Your task to perform on an android device: open chrome and create a bookmark for the current page Image 0: 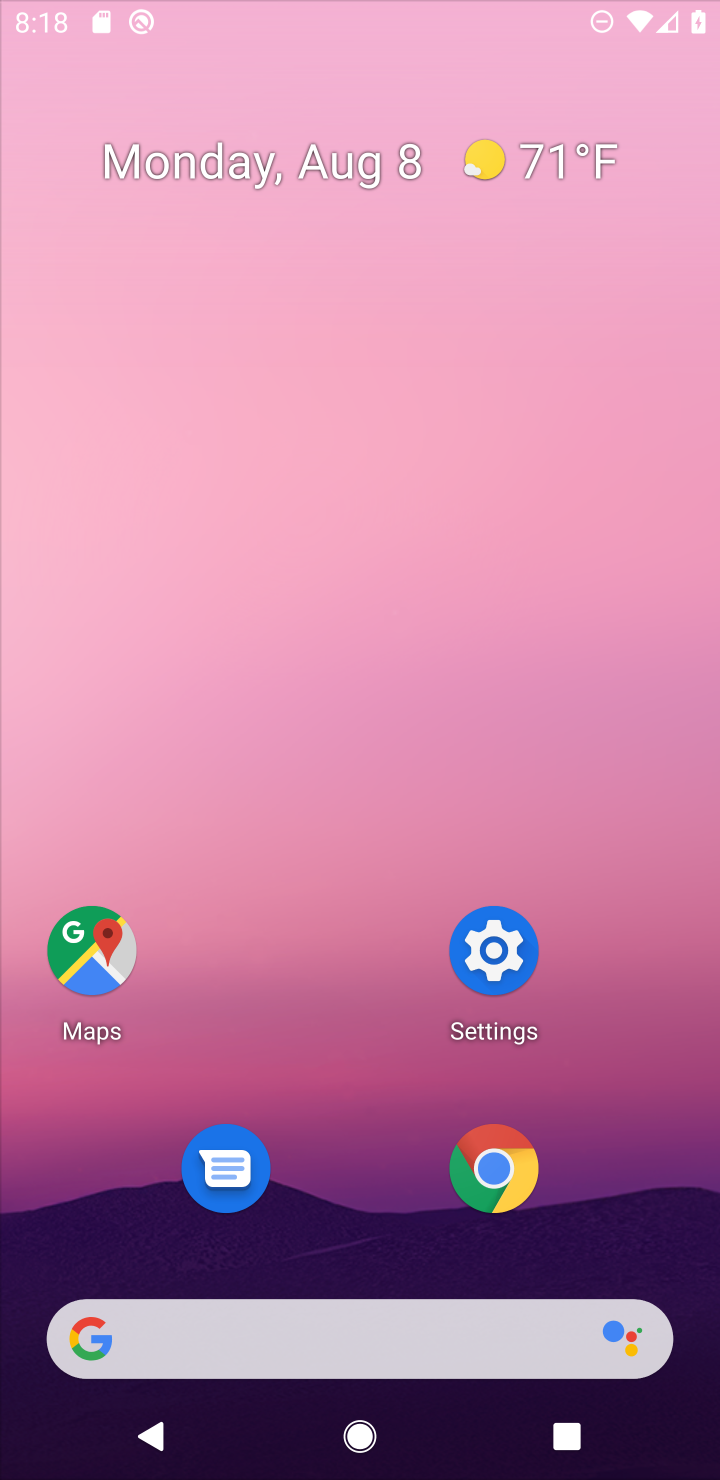
Step 0: press home button
Your task to perform on an android device: open chrome and create a bookmark for the current page Image 1: 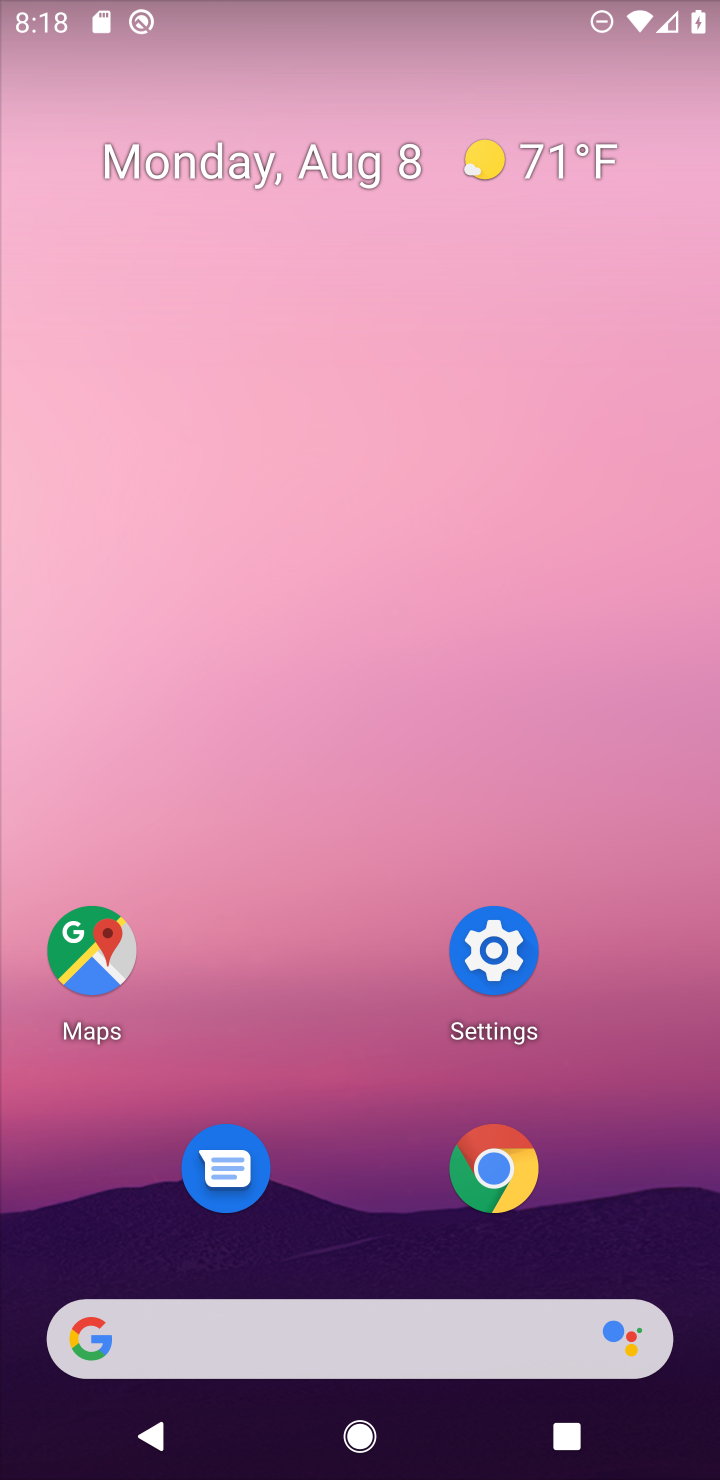
Step 1: click (494, 1174)
Your task to perform on an android device: open chrome and create a bookmark for the current page Image 2: 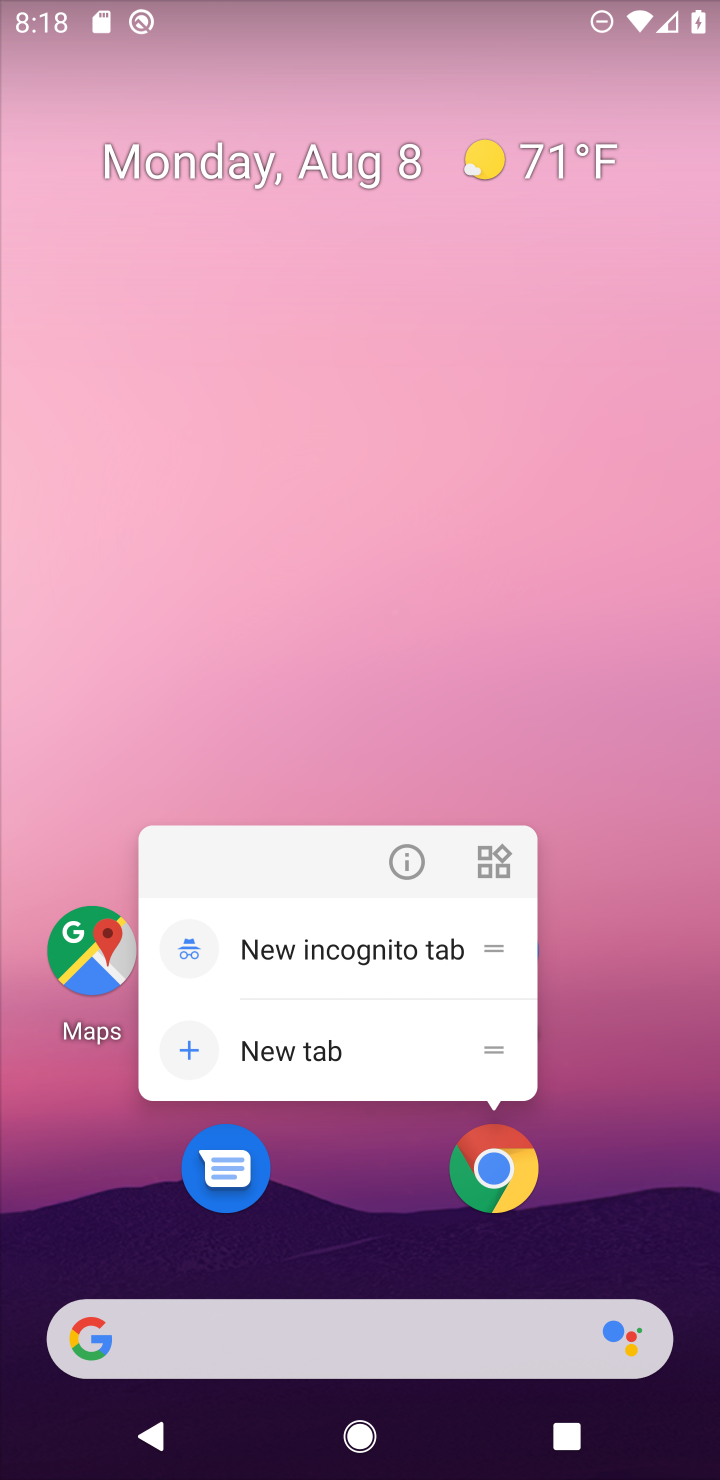
Step 2: click (494, 1172)
Your task to perform on an android device: open chrome and create a bookmark for the current page Image 3: 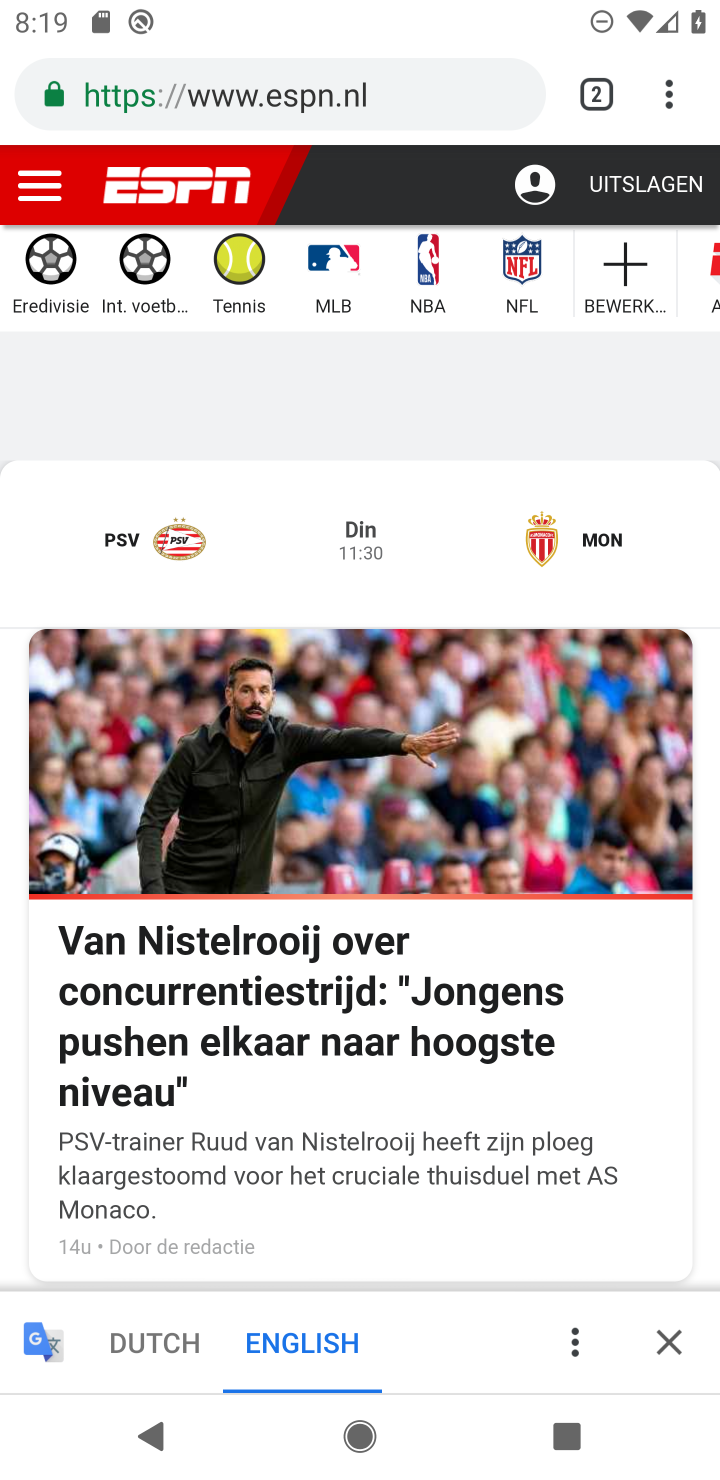
Step 3: click (668, 113)
Your task to perform on an android device: open chrome and create a bookmark for the current page Image 4: 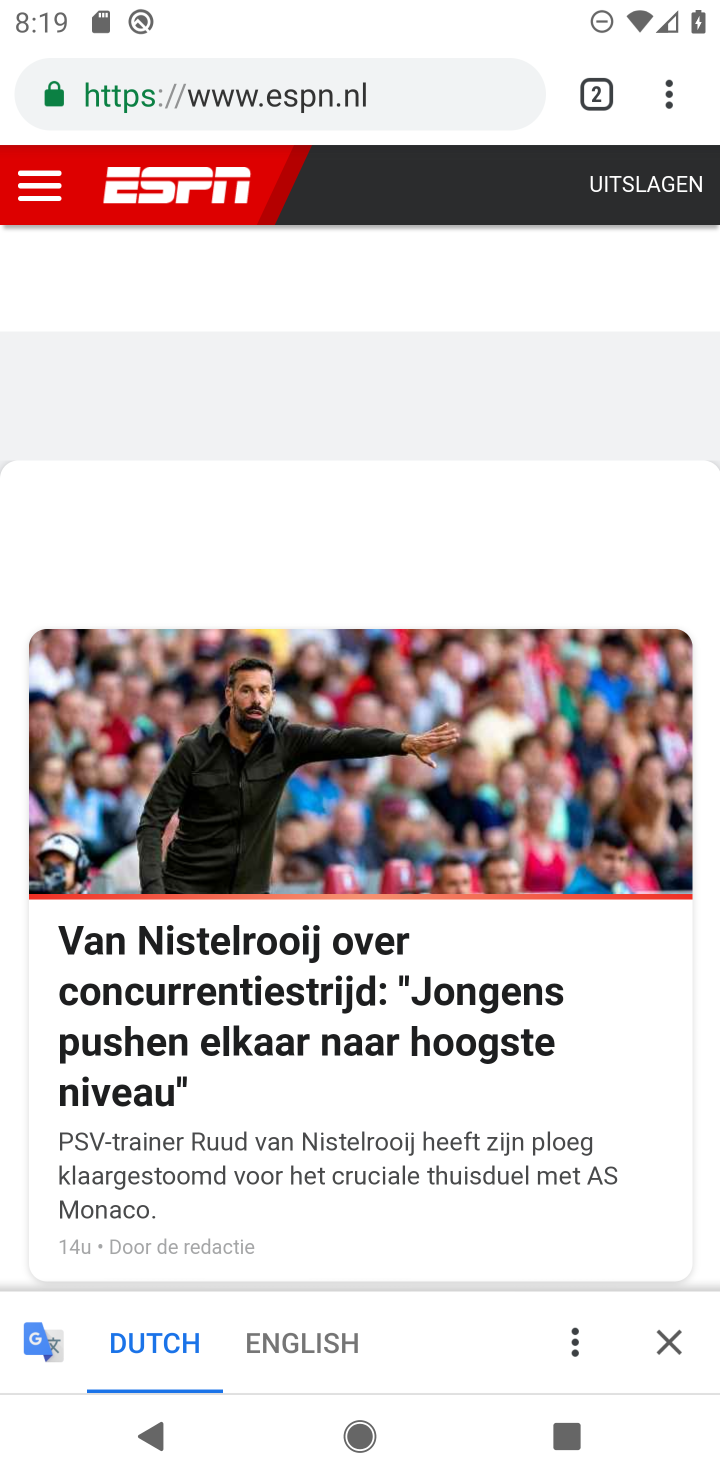
Step 4: click (666, 124)
Your task to perform on an android device: open chrome and create a bookmark for the current page Image 5: 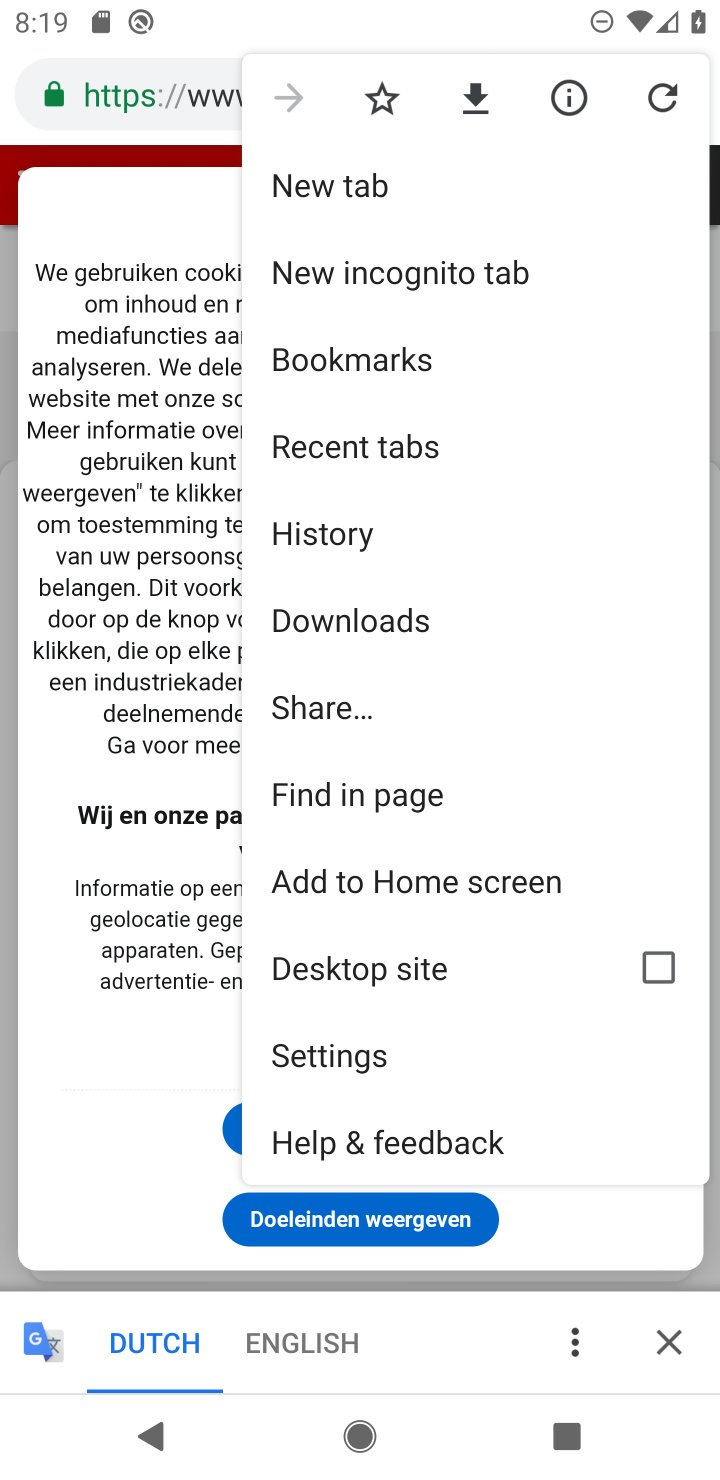
Step 5: click (382, 108)
Your task to perform on an android device: open chrome and create a bookmark for the current page Image 6: 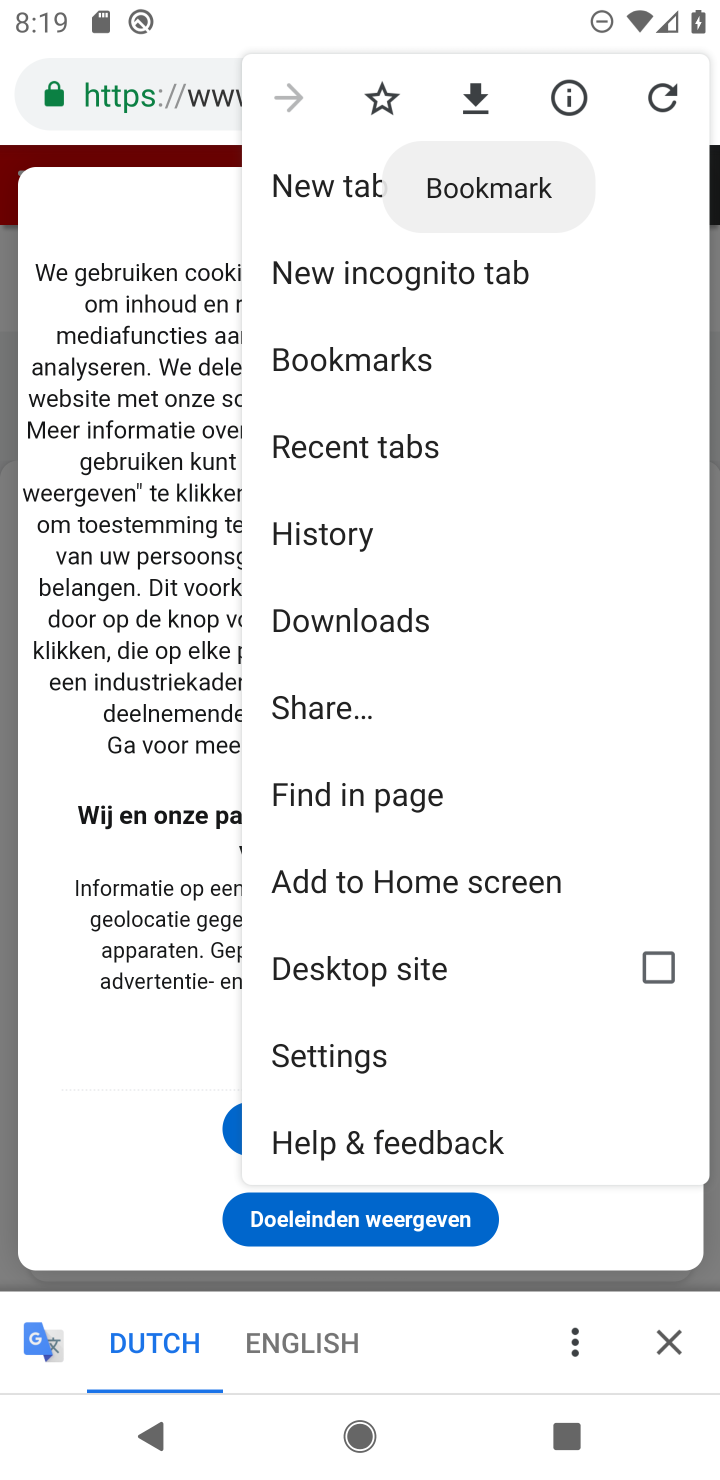
Step 6: click (380, 98)
Your task to perform on an android device: open chrome and create a bookmark for the current page Image 7: 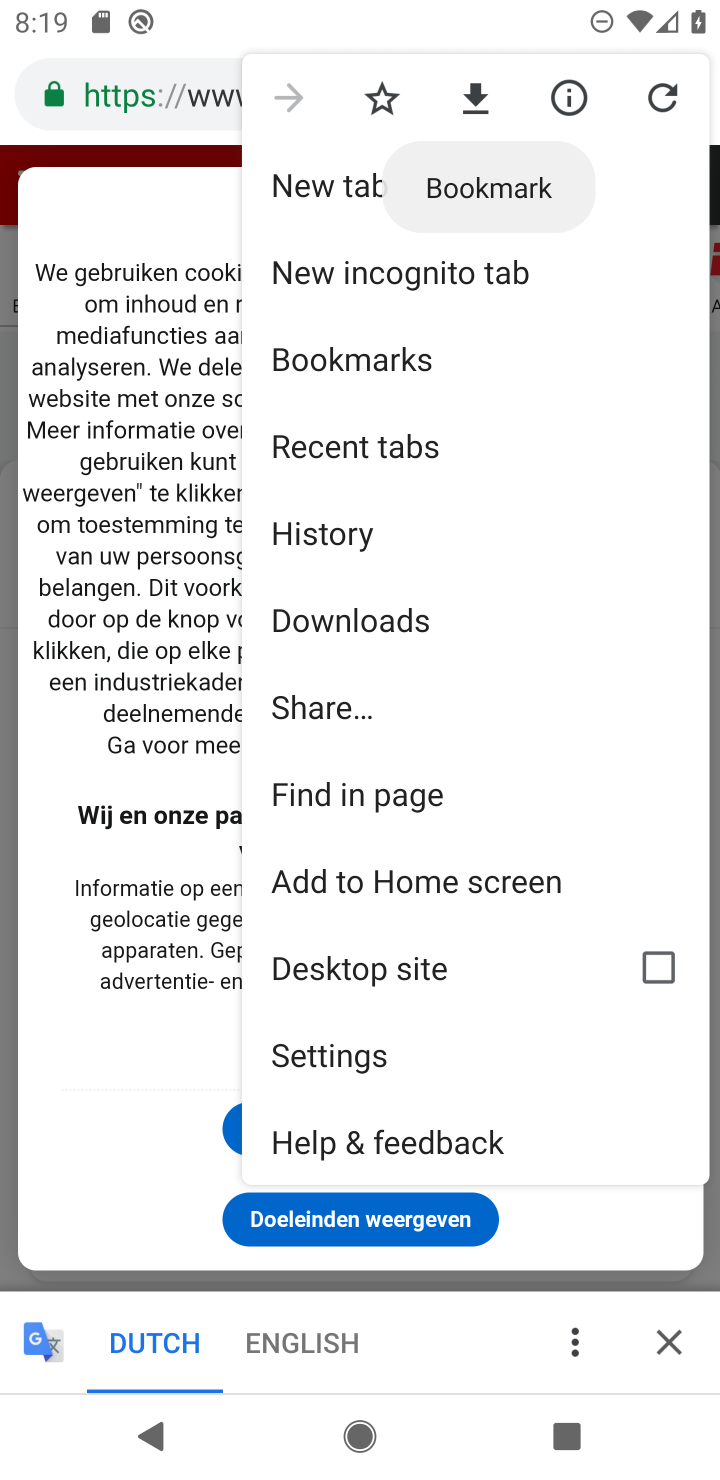
Step 7: click (380, 96)
Your task to perform on an android device: open chrome and create a bookmark for the current page Image 8: 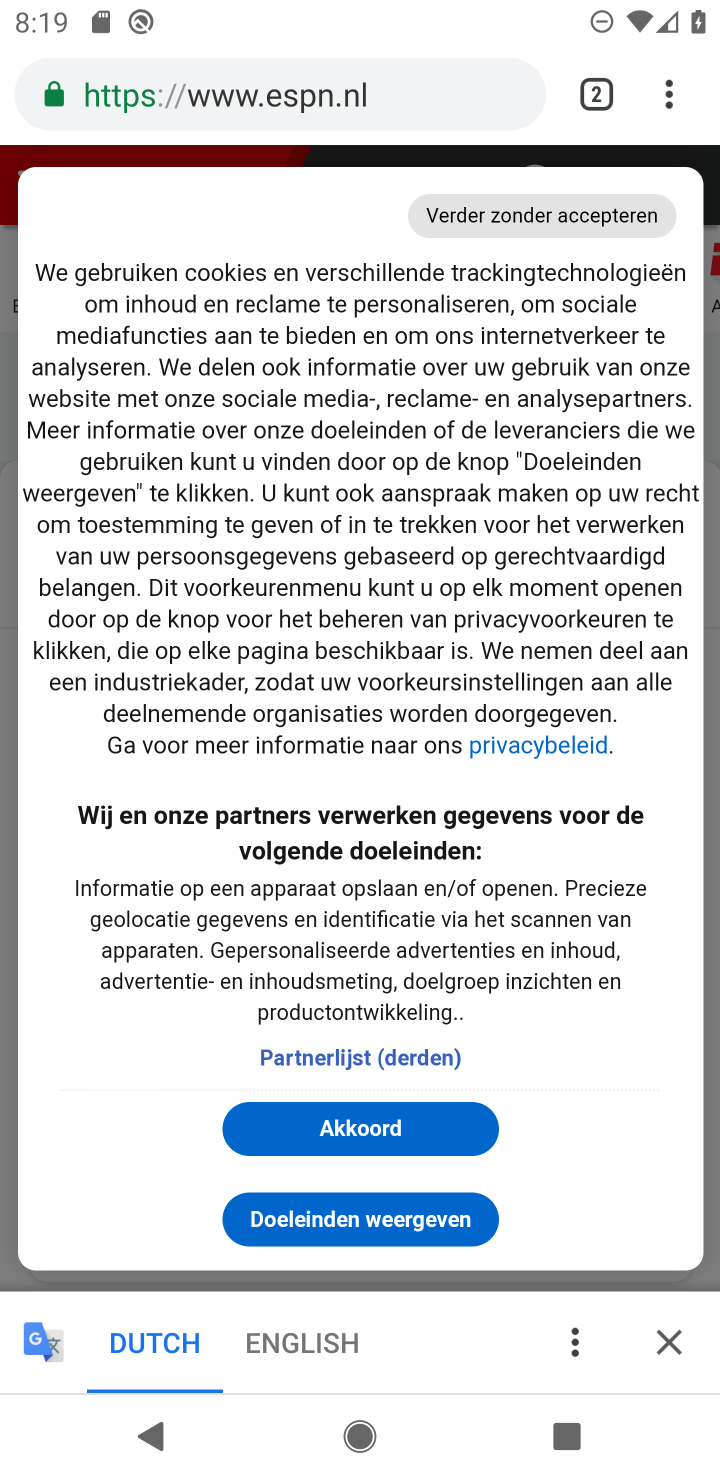
Step 8: task complete